Your task to perform on an android device: See recent photos Image 0: 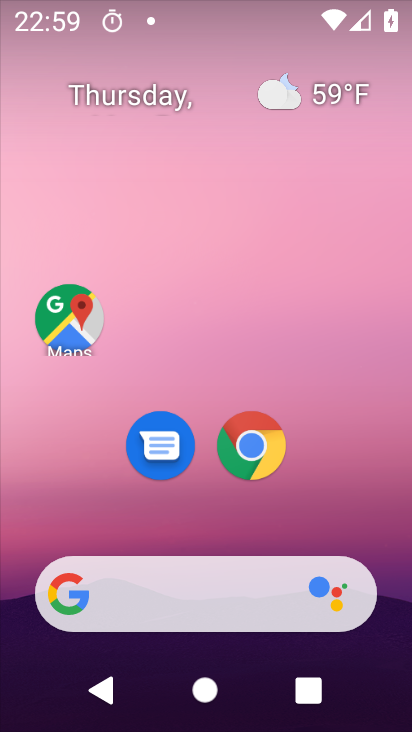
Step 0: drag from (182, 570) to (182, 164)
Your task to perform on an android device: See recent photos Image 1: 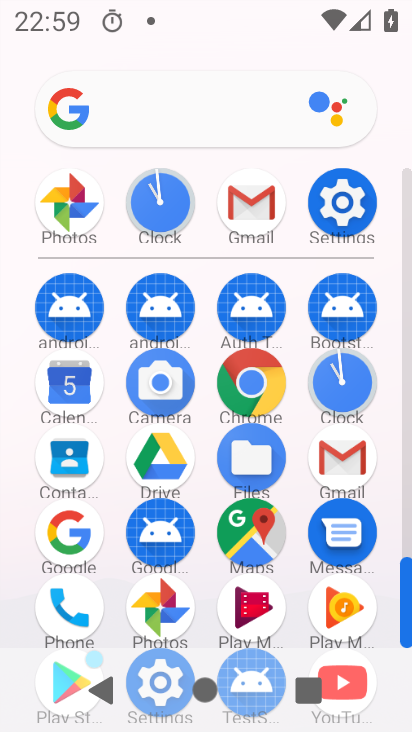
Step 1: click (166, 595)
Your task to perform on an android device: See recent photos Image 2: 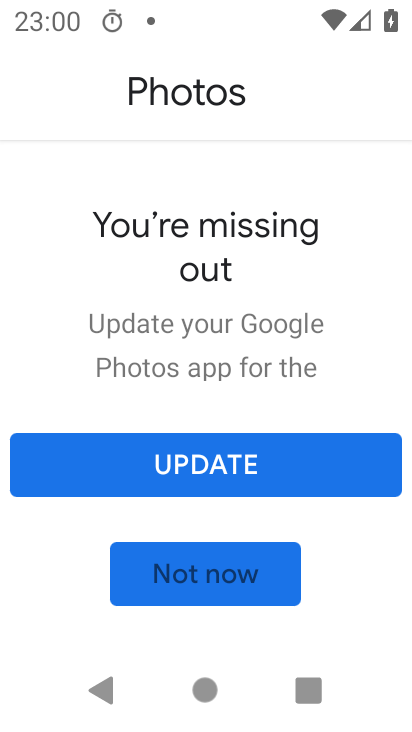
Step 2: click (213, 563)
Your task to perform on an android device: See recent photos Image 3: 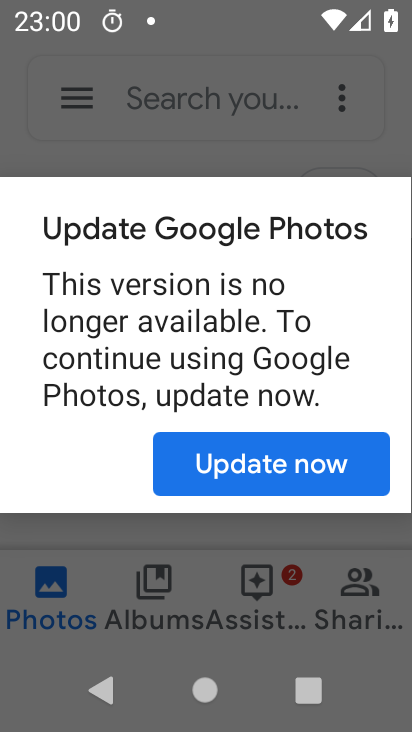
Step 3: click (319, 473)
Your task to perform on an android device: See recent photos Image 4: 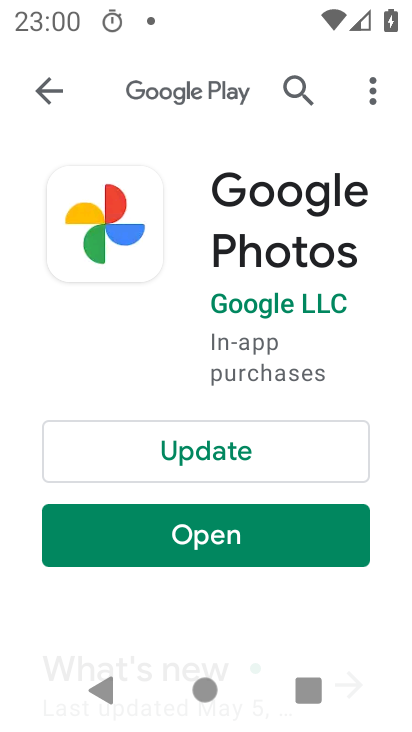
Step 4: click (274, 459)
Your task to perform on an android device: See recent photos Image 5: 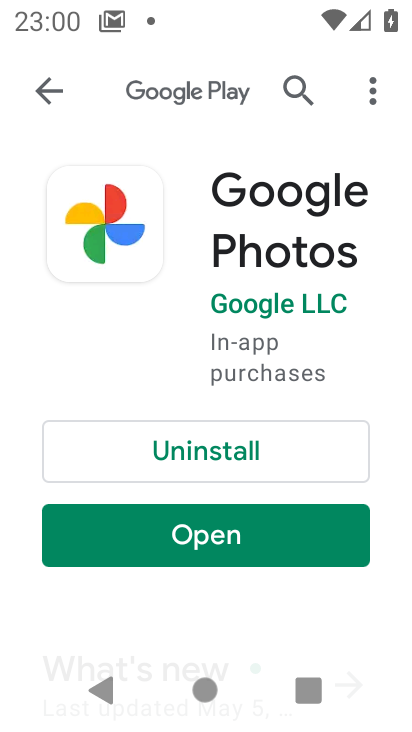
Step 5: click (205, 544)
Your task to perform on an android device: See recent photos Image 6: 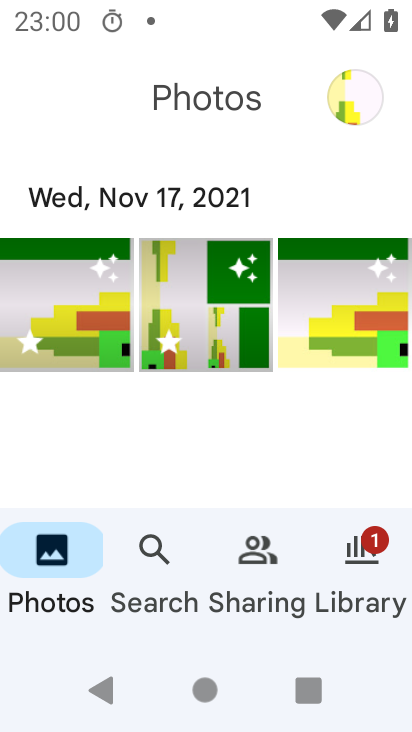
Step 6: task complete